Your task to perform on an android device: Open notification settings Image 0: 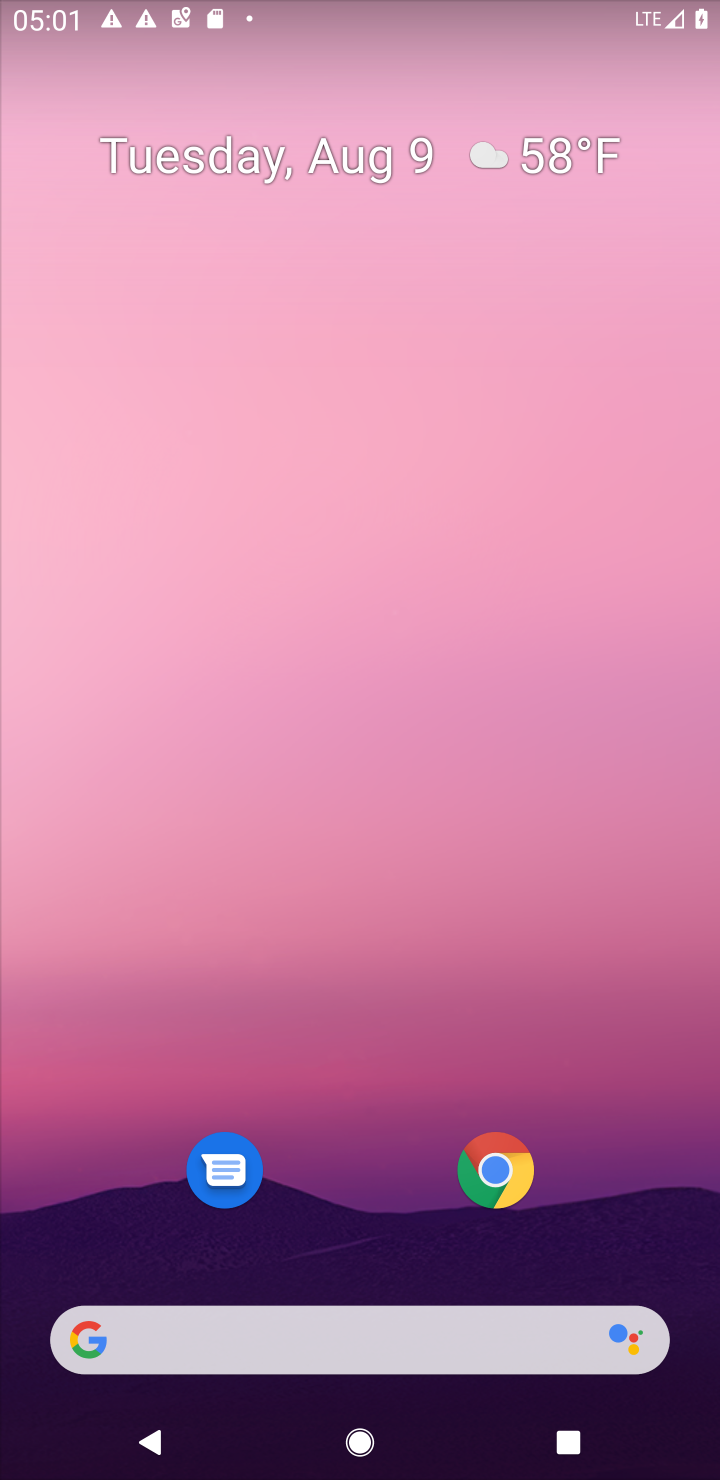
Step 0: press home button
Your task to perform on an android device: Open notification settings Image 1: 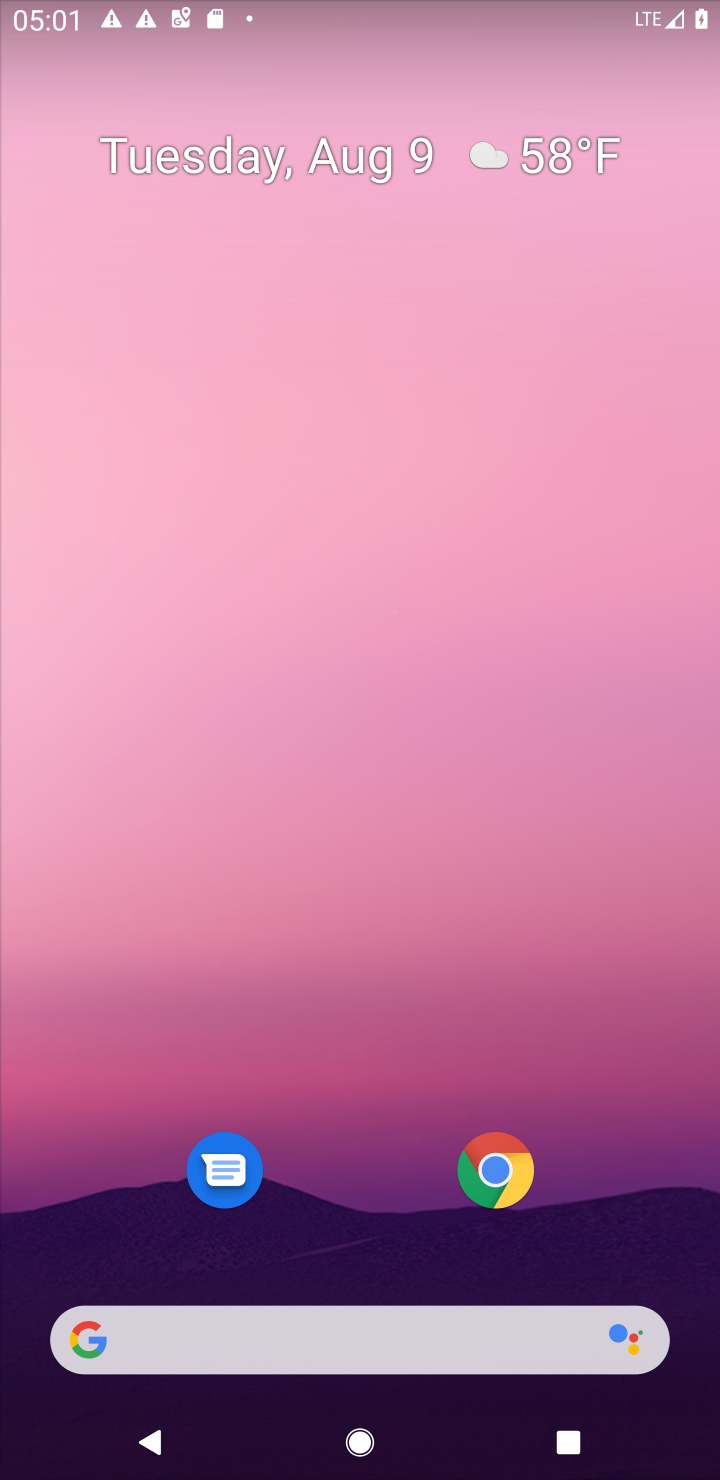
Step 1: drag from (372, 1185) to (408, 46)
Your task to perform on an android device: Open notification settings Image 2: 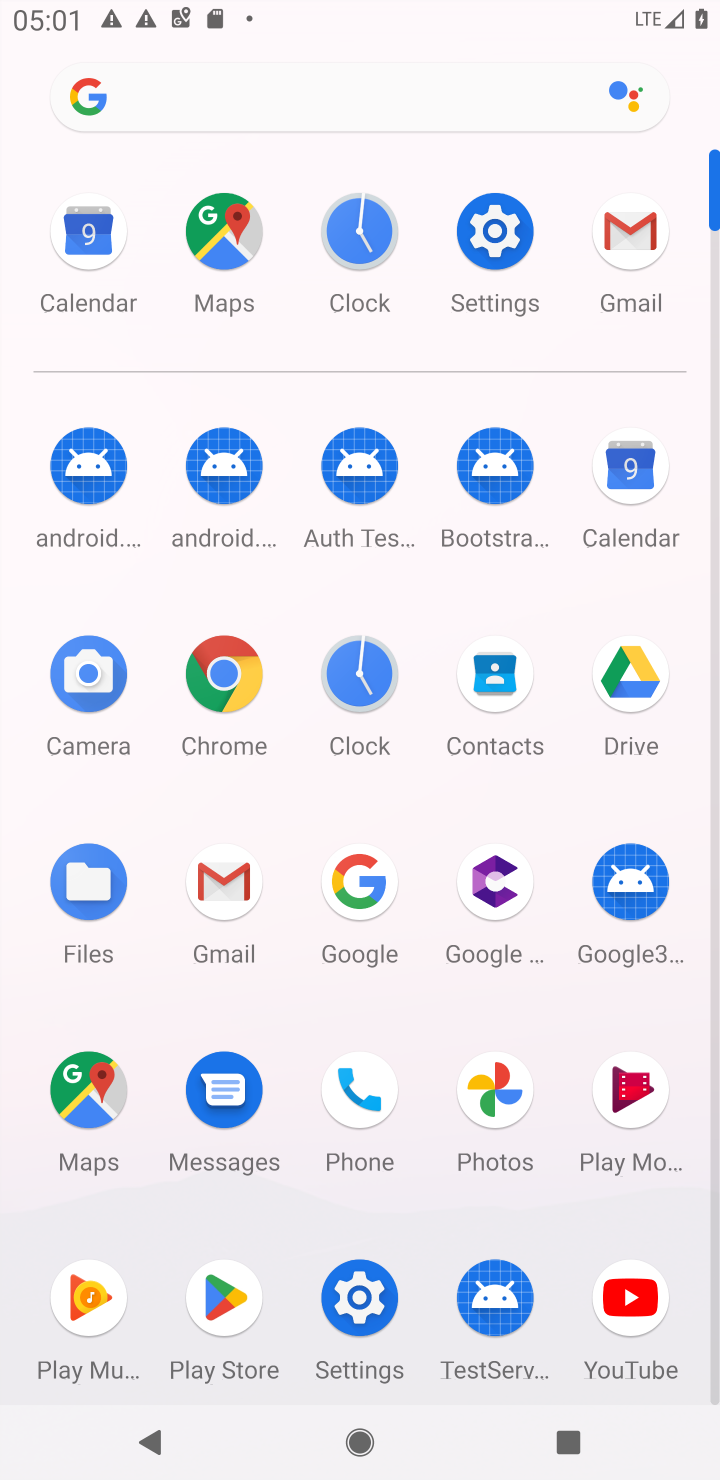
Step 2: click (485, 219)
Your task to perform on an android device: Open notification settings Image 3: 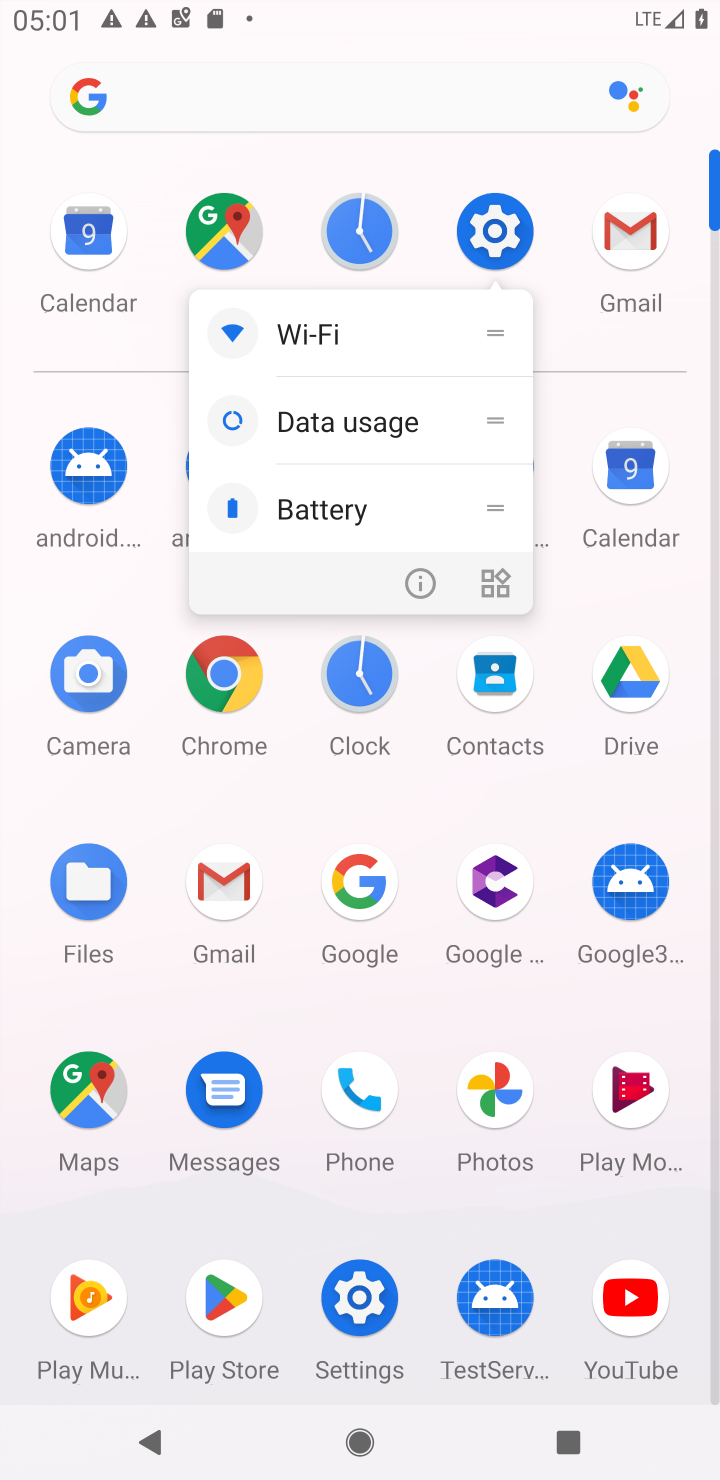
Step 3: click (497, 215)
Your task to perform on an android device: Open notification settings Image 4: 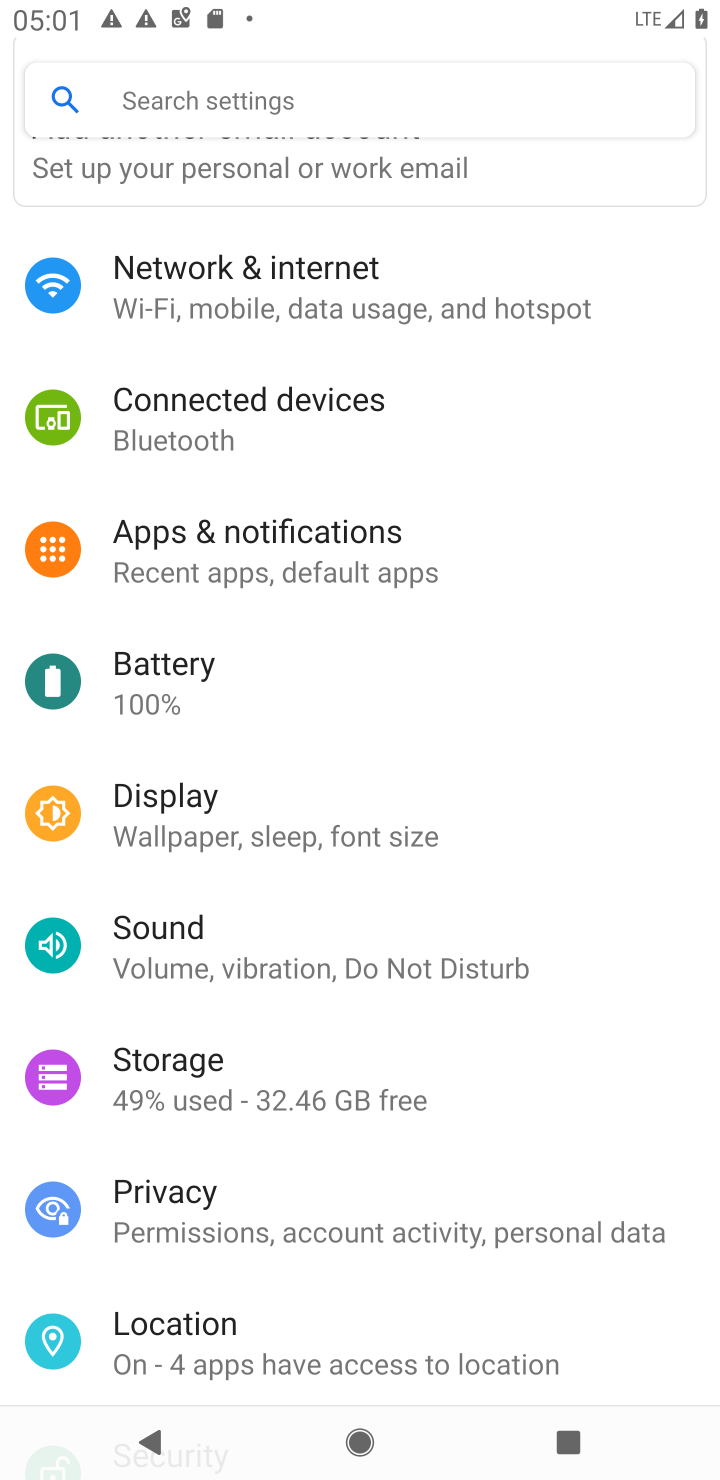
Step 4: click (285, 542)
Your task to perform on an android device: Open notification settings Image 5: 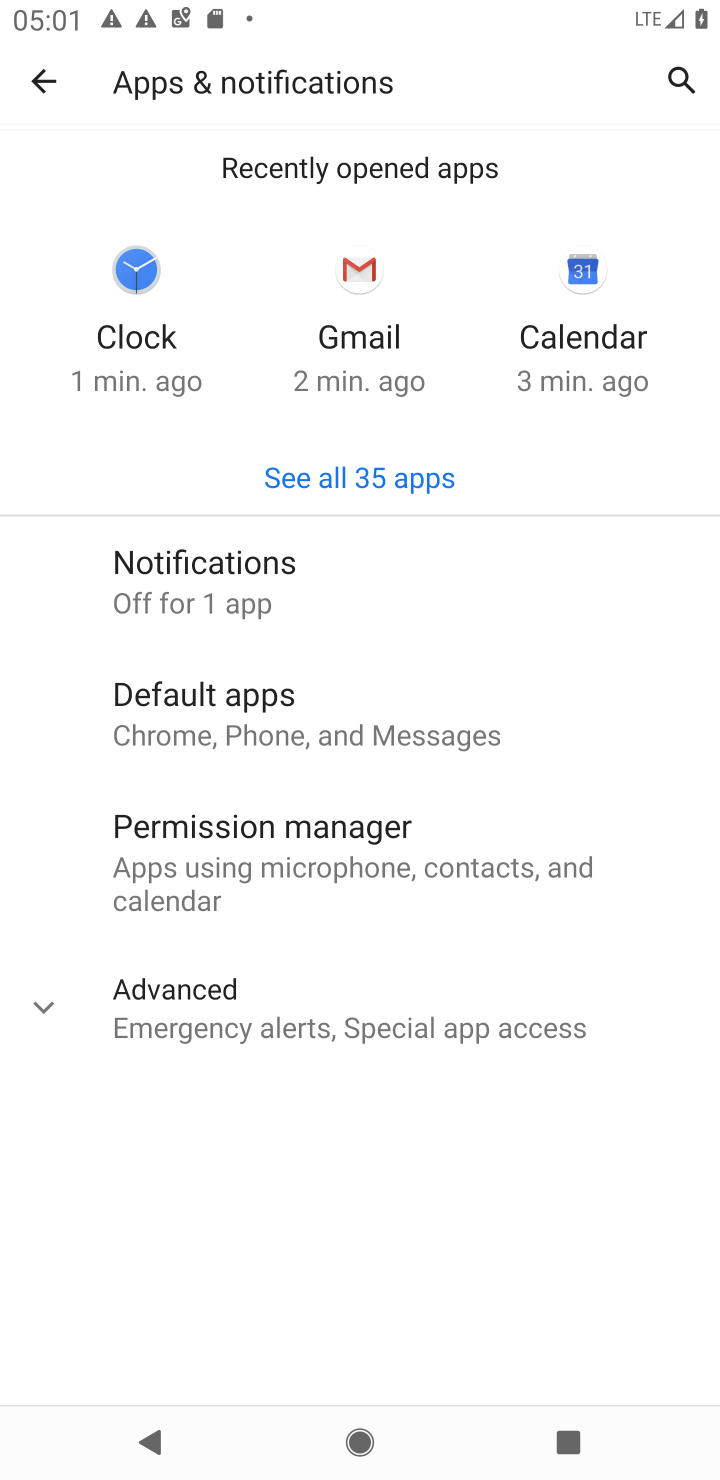
Step 5: click (167, 577)
Your task to perform on an android device: Open notification settings Image 6: 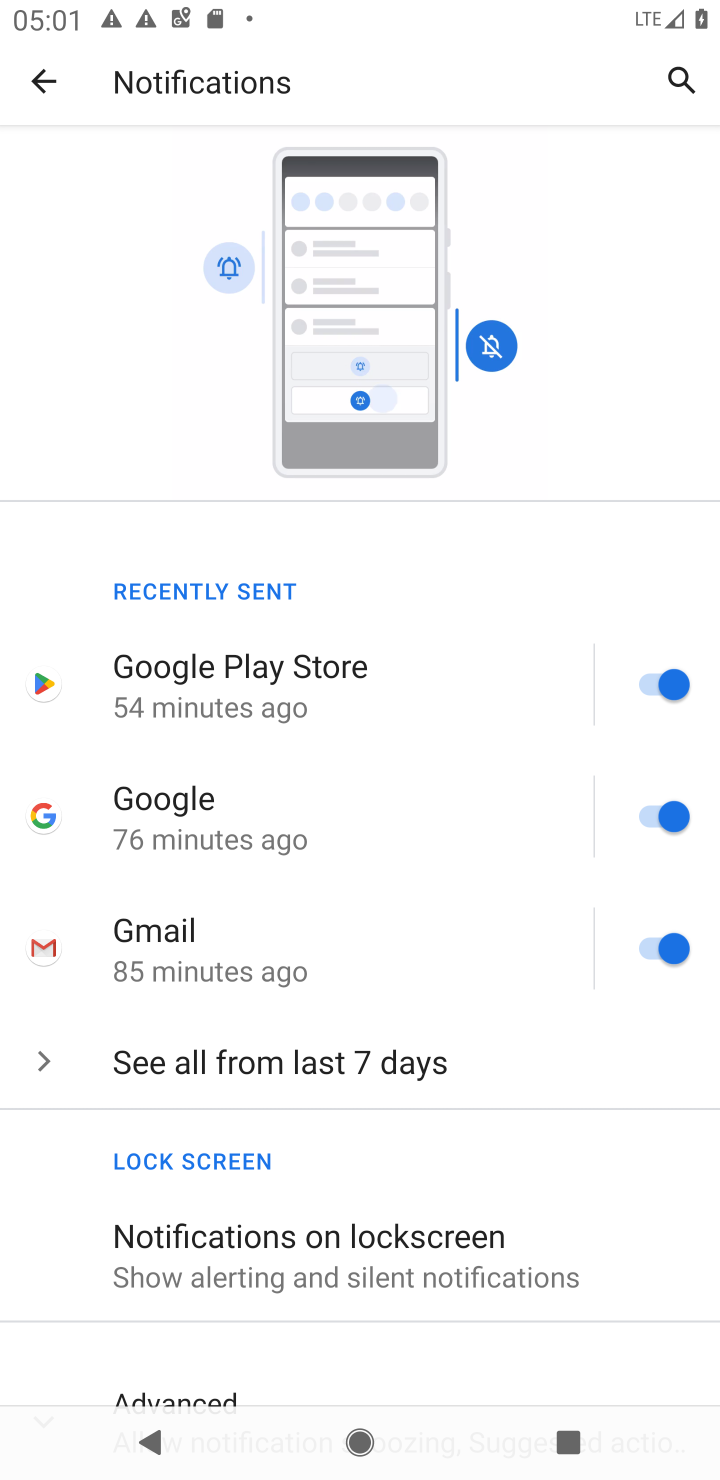
Step 6: click (484, 344)
Your task to perform on an android device: Open notification settings Image 7: 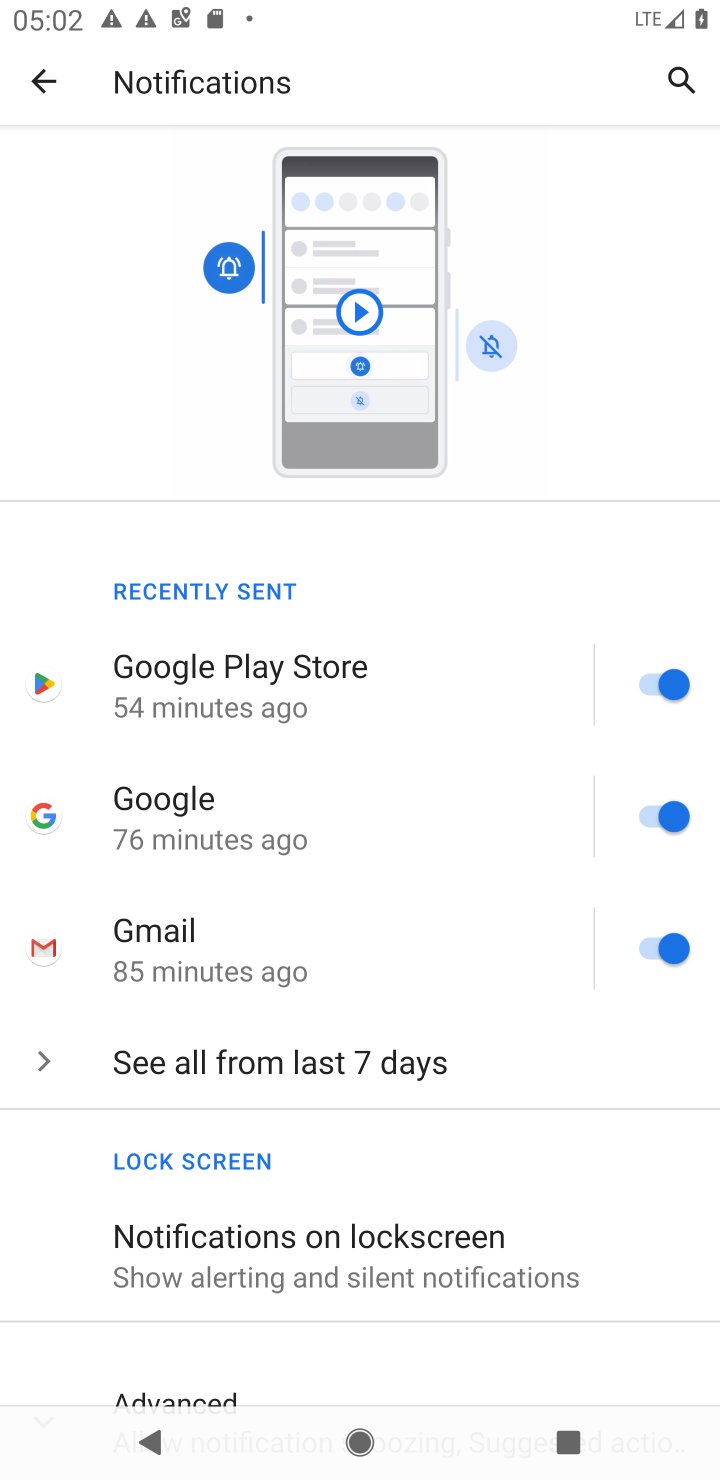
Step 7: task complete